Your task to perform on an android device: Show the shopping cart on newegg.com. Search for "razer huntsman" on newegg.com, select the first entry, and add it to the cart. Image 0: 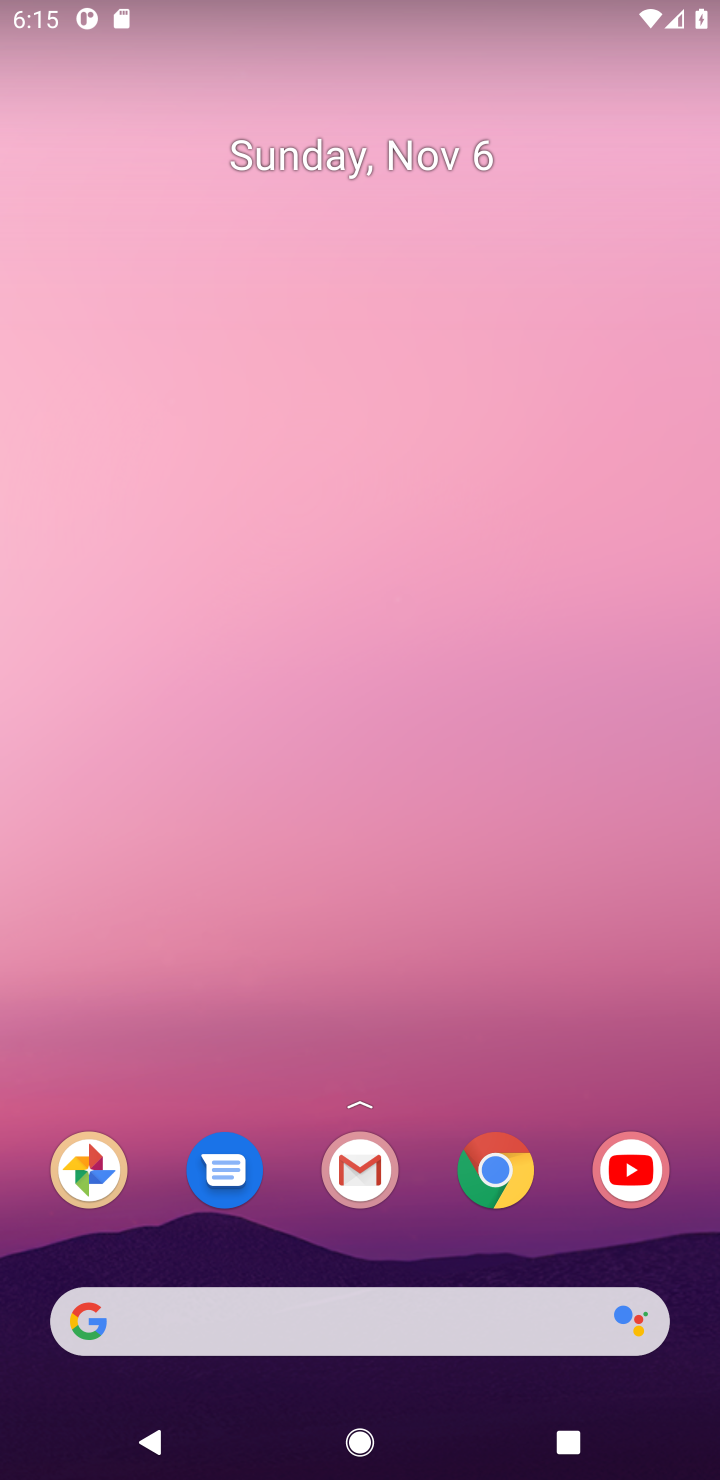
Step 0: click (500, 1184)
Your task to perform on an android device: Show the shopping cart on newegg.com. Search for "razer huntsman" on newegg.com, select the first entry, and add it to the cart. Image 1: 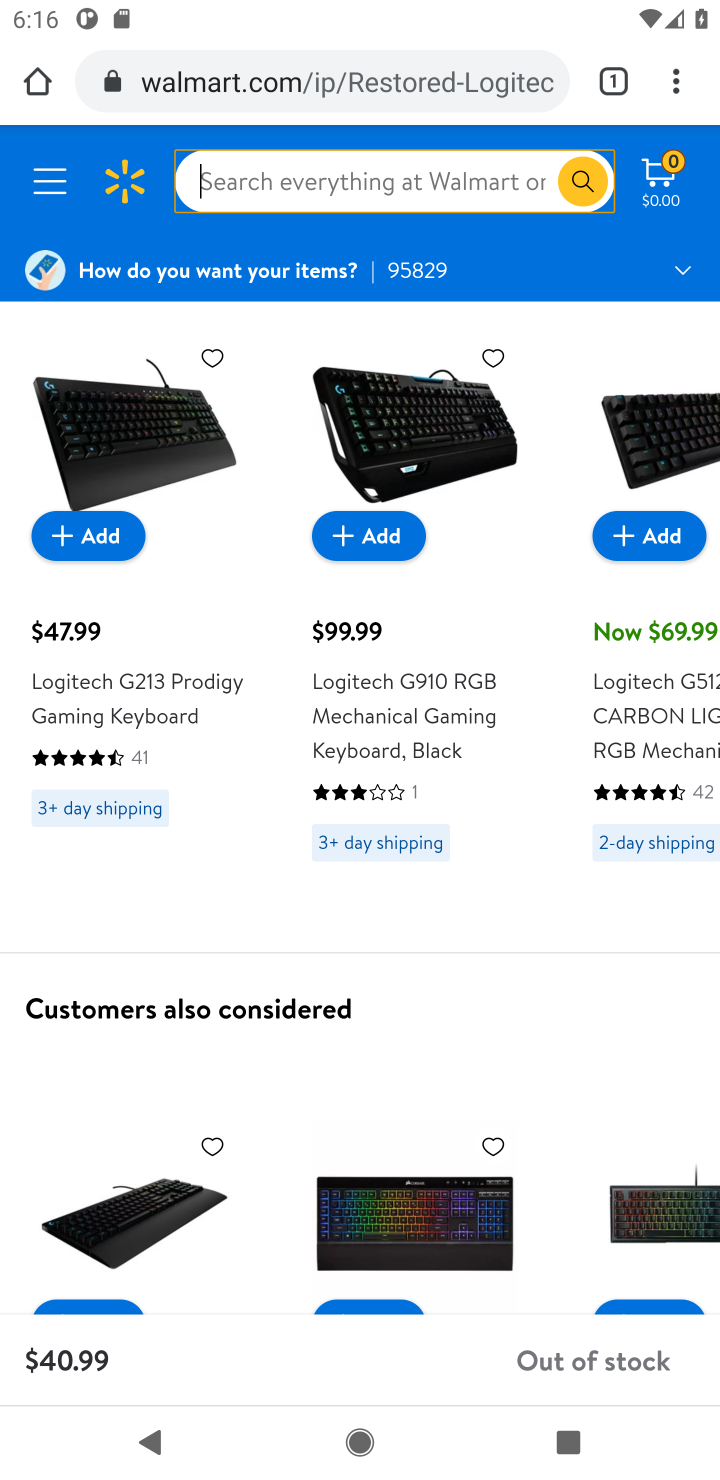
Step 1: click (206, 77)
Your task to perform on an android device: Show the shopping cart on newegg.com. Search for "razer huntsman" on newegg.com, select the first entry, and add it to the cart. Image 2: 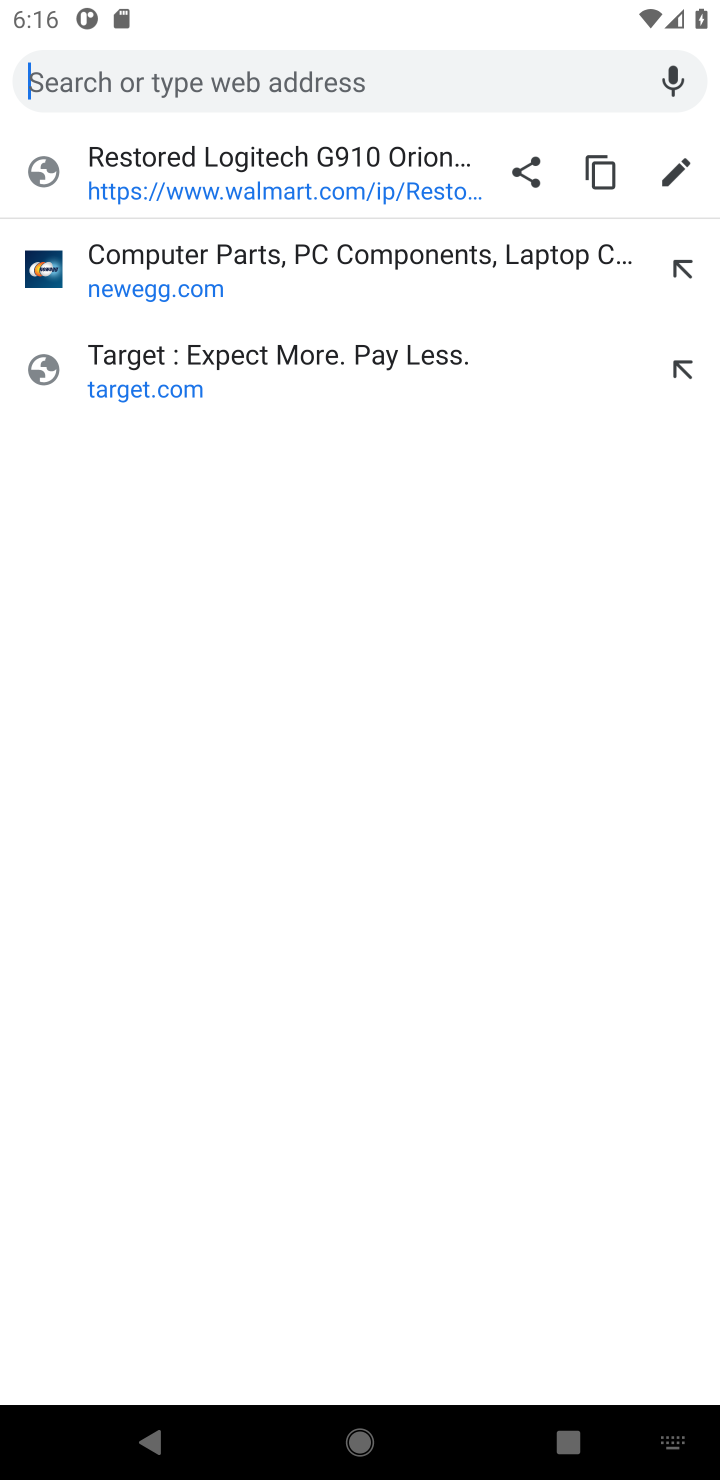
Step 2: type "newegg"
Your task to perform on an android device: Show the shopping cart on newegg.com. Search for "razer huntsman" on newegg.com, select the first entry, and add it to the cart. Image 3: 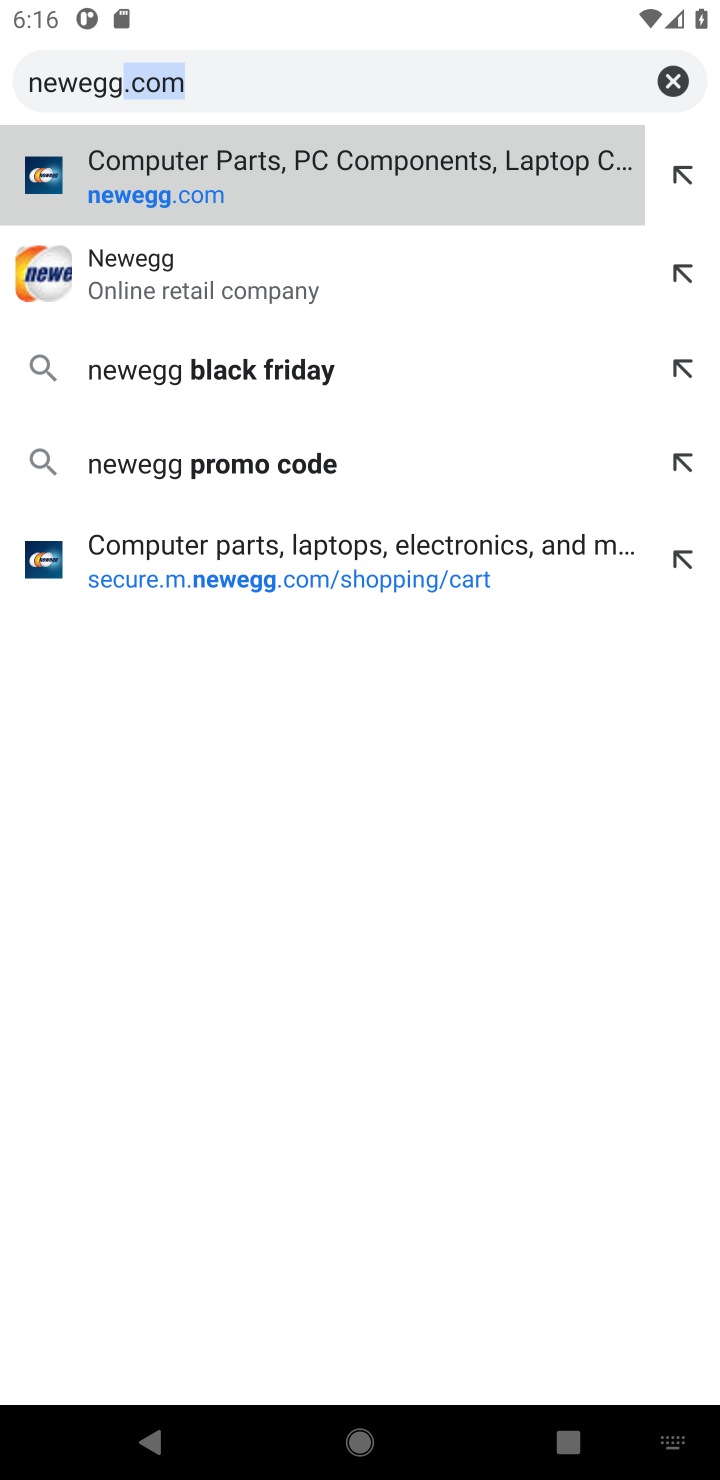
Step 3: click (366, 169)
Your task to perform on an android device: Show the shopping cart on newegg.com. Search for "razer huntsman" on newegg.com, select the first entry, and add it to the cart. Image 4: 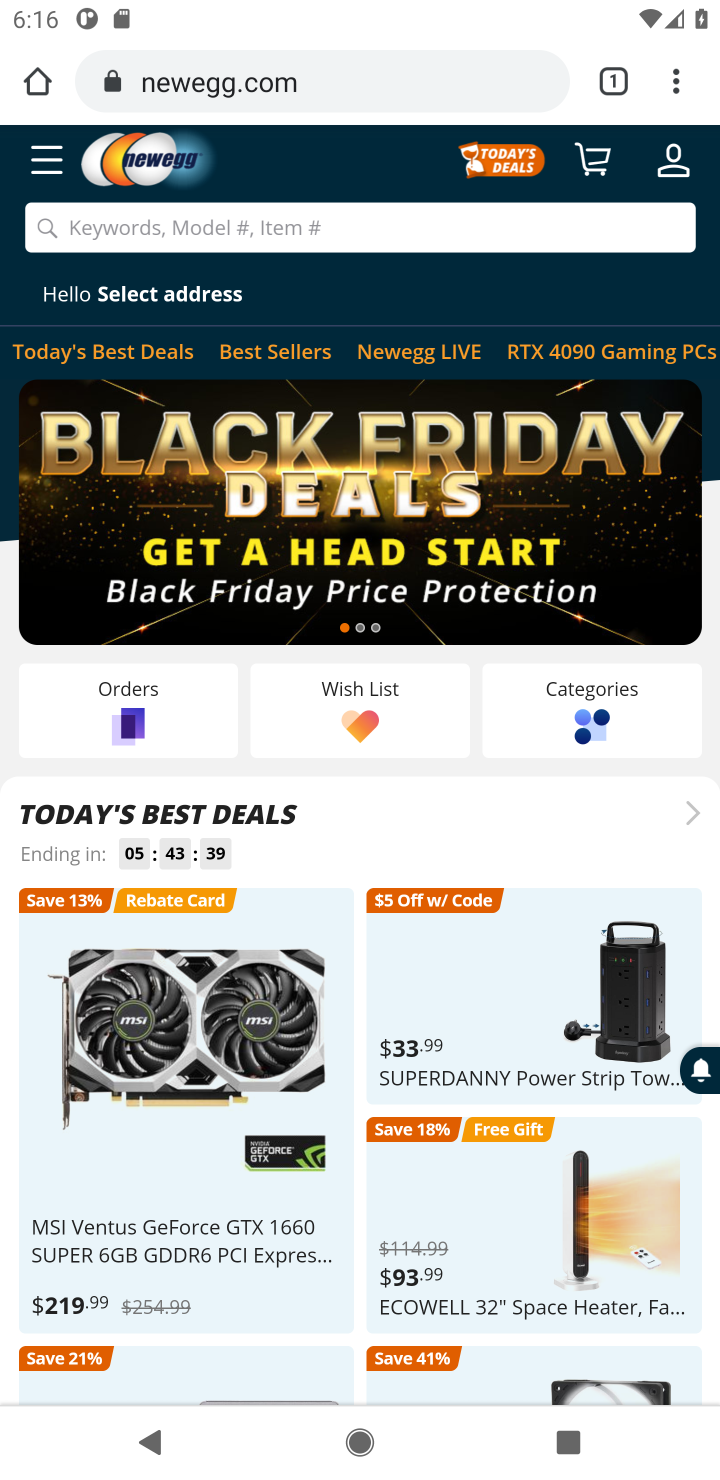
Step 4: click (592, 156)
Your task to perform on an android device: Show the shopping cart on newegg.com. Search for "razer huntsman" on newegg.com, select the first entry, and add it to the cart. Image 5: 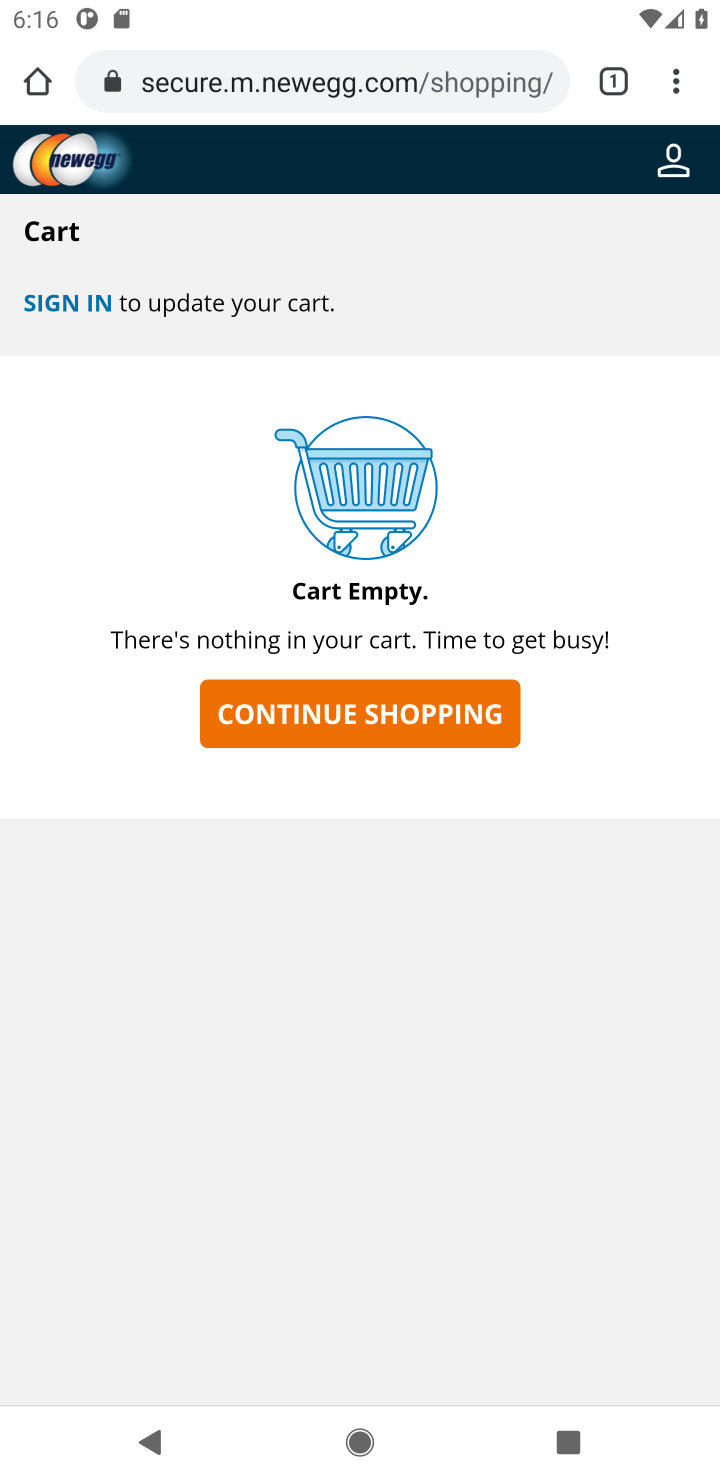
Step 5: click (302, 720)
Your task to perform on an android device: Show the shopping cart on newegg.com. Search for "razer huntsman" on newegg.com, select the first entry, and add it to the cart. Image 6: 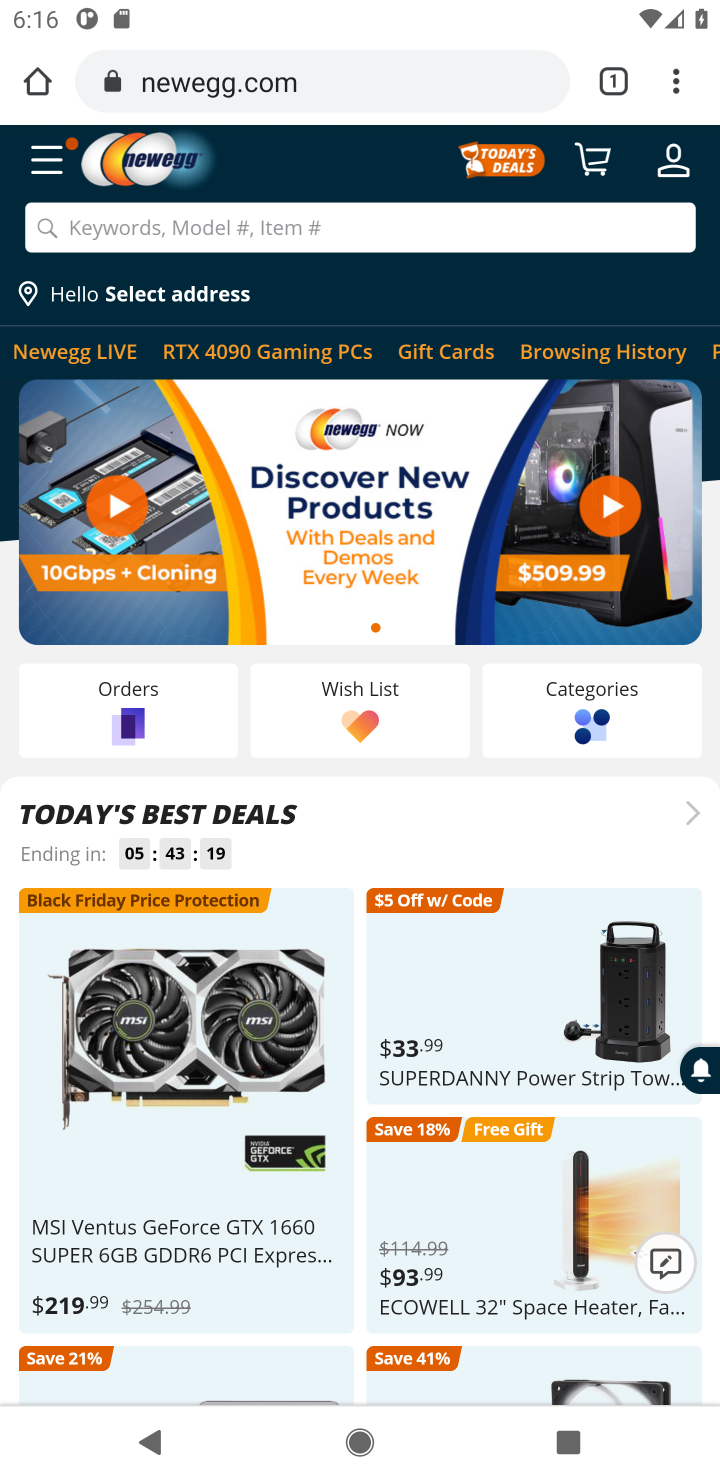
Step 6: click (262, 238)
Your task to perform on an android device: Show the shopping cart on newegg.com. Search for "razer huntsman" on newegg.com, select the first entry, and add it to the cart. Image 7: 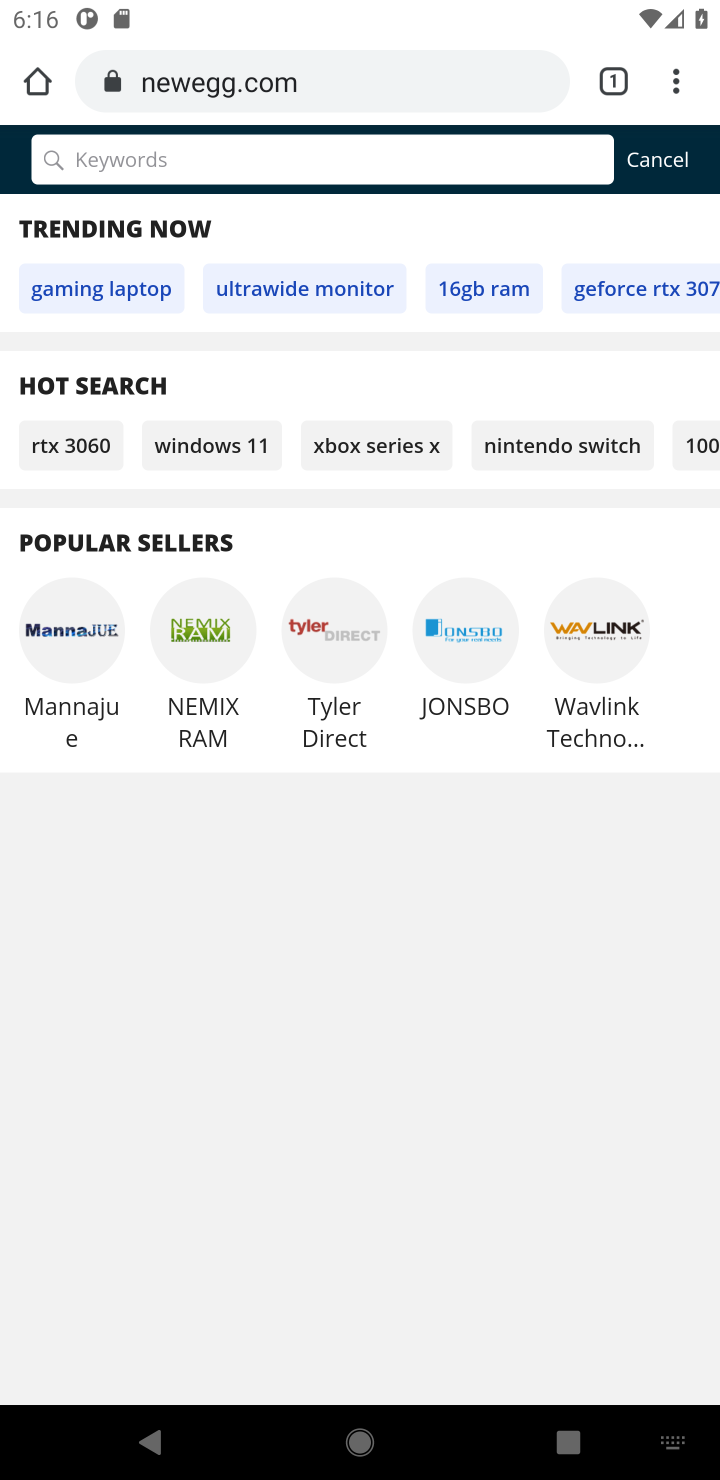
Step 7: type "razer huntsman"
Your task to perform on an android device: Show the shopping cart on newegg.com. Search for "razer huntsman" on newegg.com, select the first entry, and add it to the cart. Image 8: 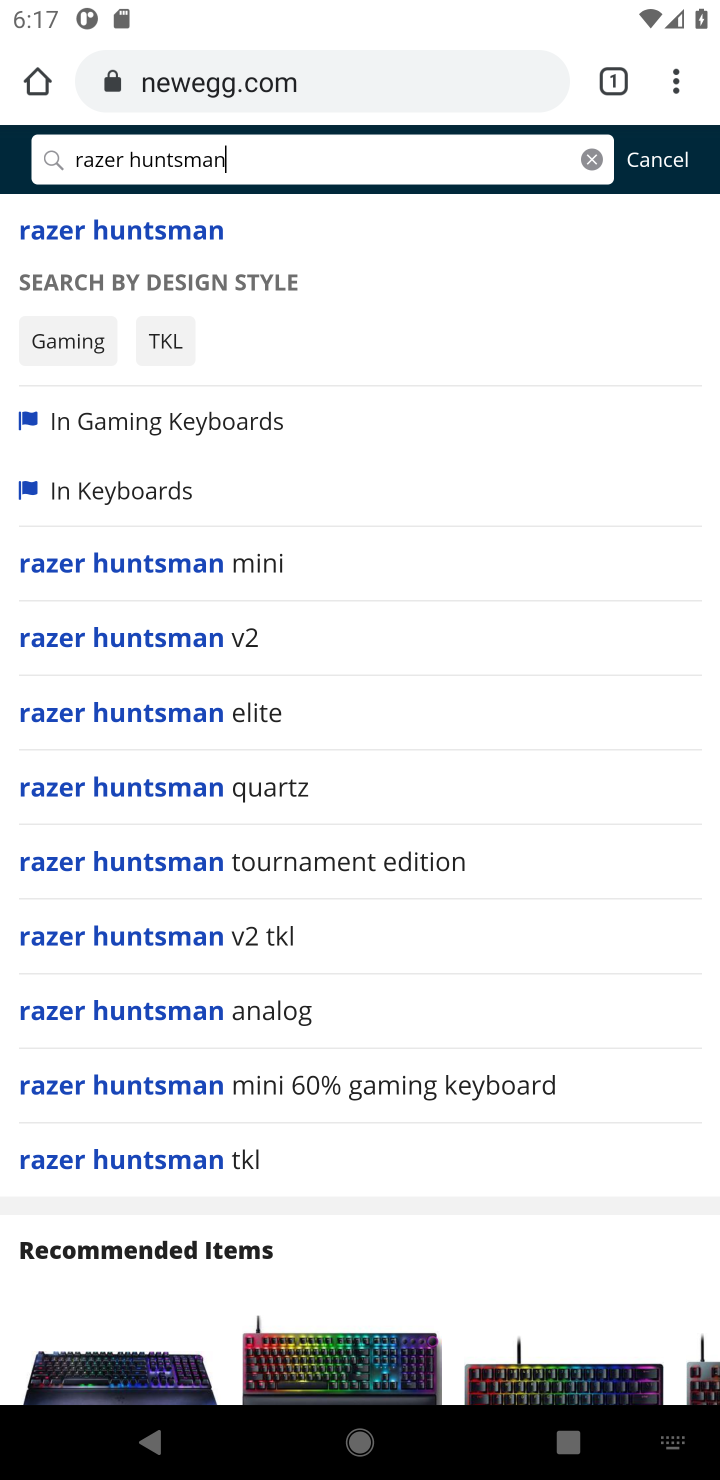
Step 8: click (100, 240)
Your task to perform on an android device: Show the shopping cart on newegg.com. Search for "razer huntsman" on newegg.com, select the first entry, and add it to the cart. Image 9: 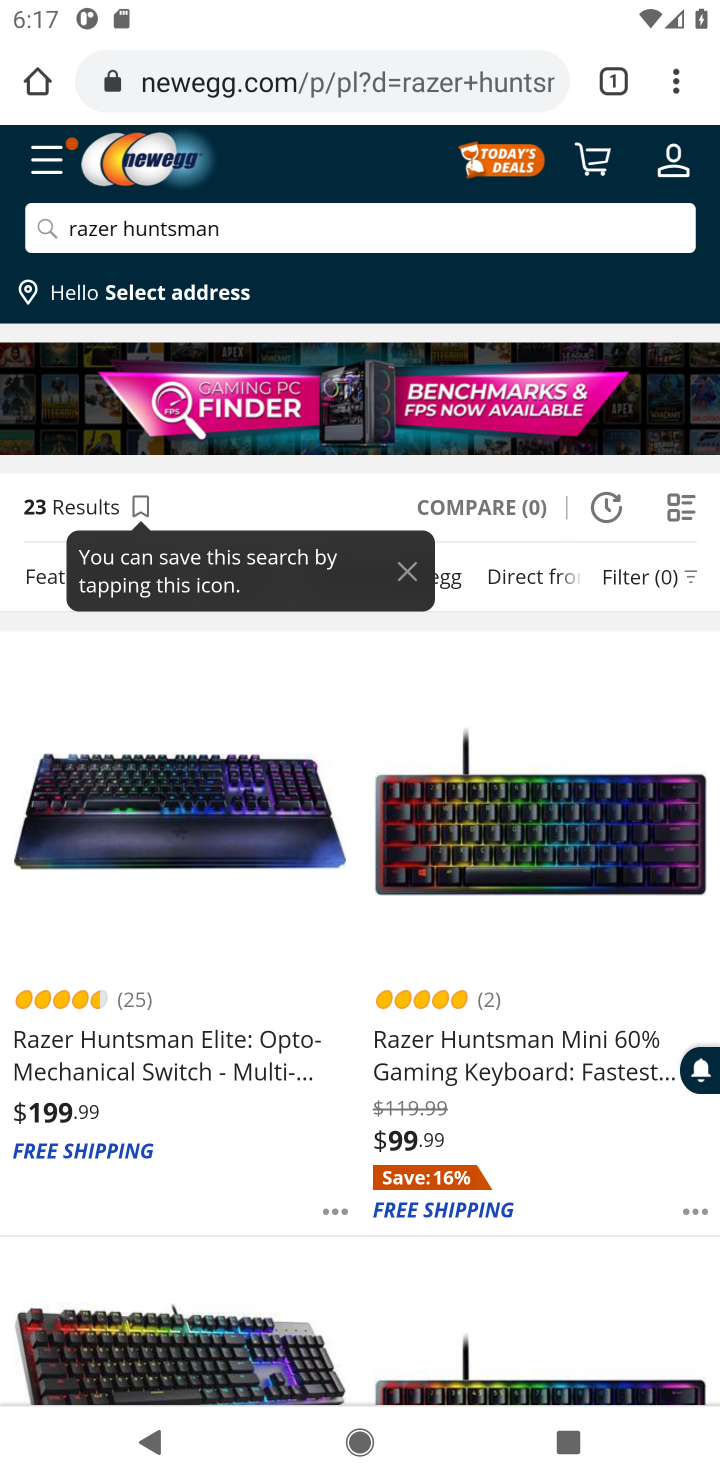
Step 9: click (142, 901)
Your task to perform on an android device: Show the shopping cart on newegg.com. Search for "razer huntsman" on newegg.com, select the first entry, and add it to the cart. Image 10: 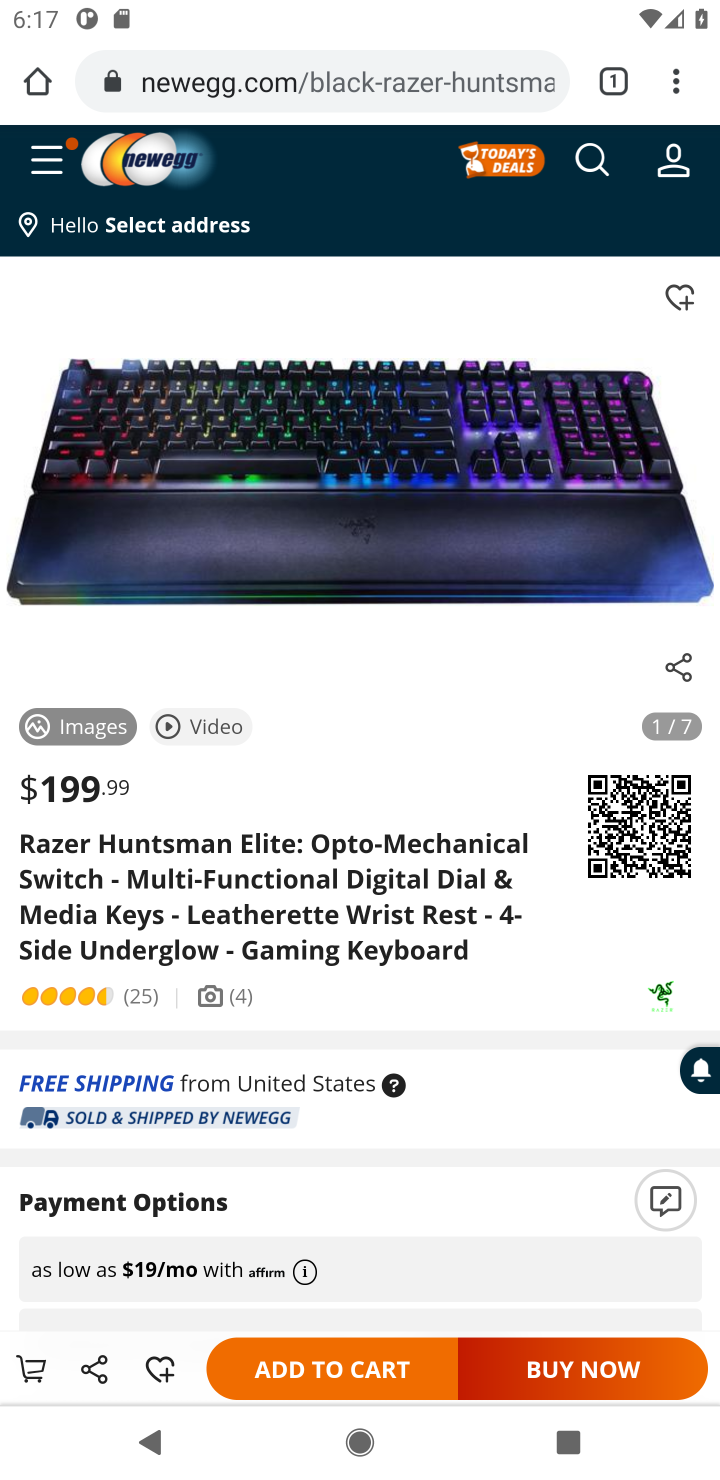
Step 10: click (351, 1371)
Your task to perform on an android device: Show the shopping cart on newegg.com. Search for "razer huntsman" on newegg.com, select the first entry, and add it to the cart. Image 11: 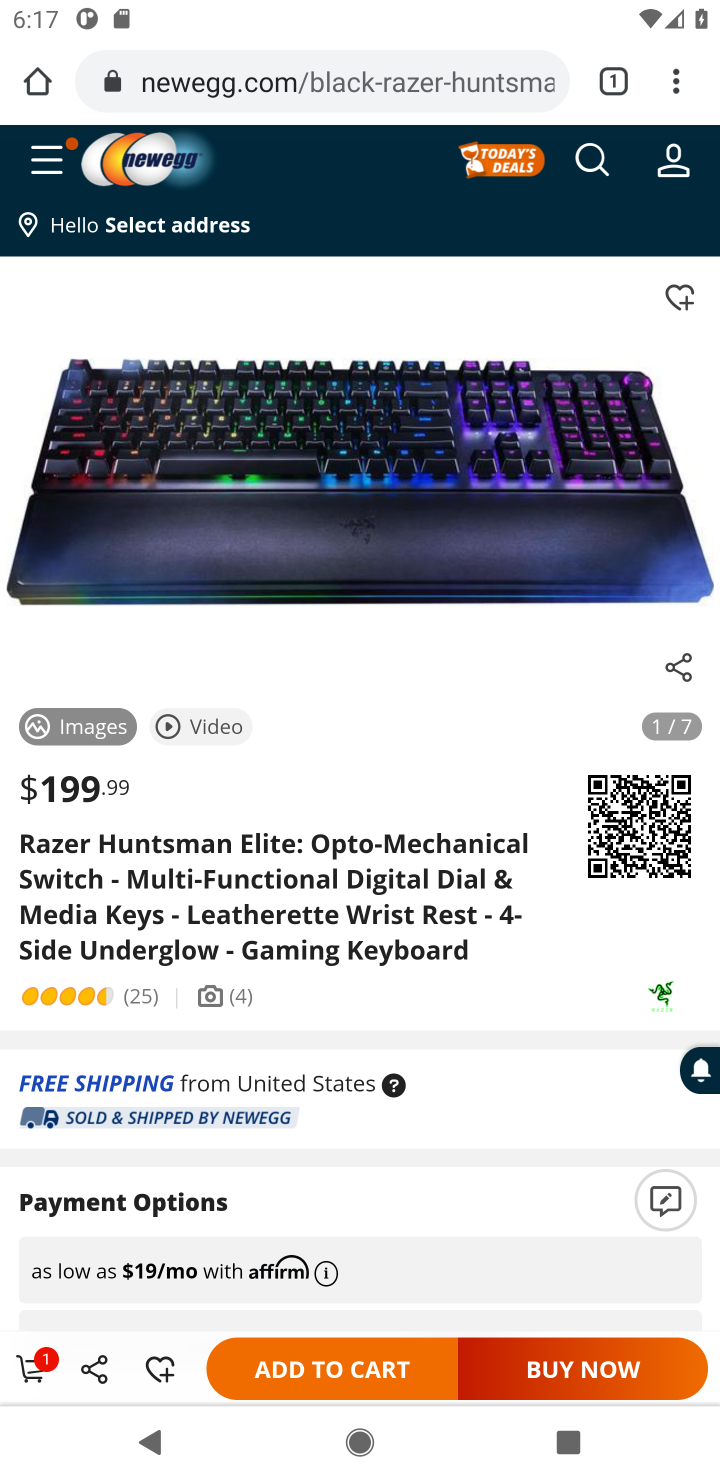
Step 11: task complete